Your task to perform on an android device: Open Maps and search for coffee Image 0: 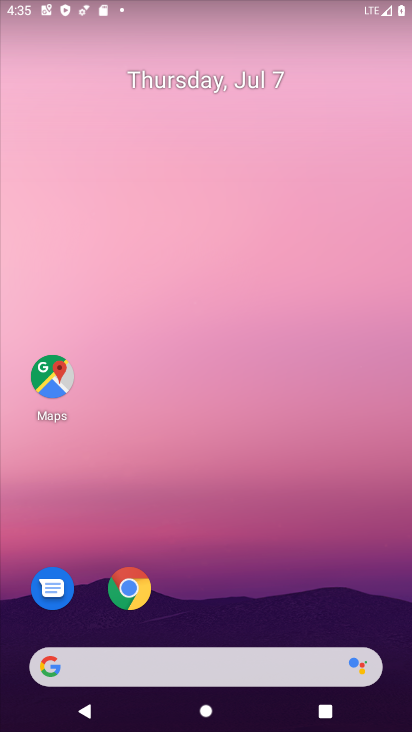
Step 0: drag from (328, 655) to (306, 21)
Your task to perform on an android device: Open Maps and search for coffee Image 1: 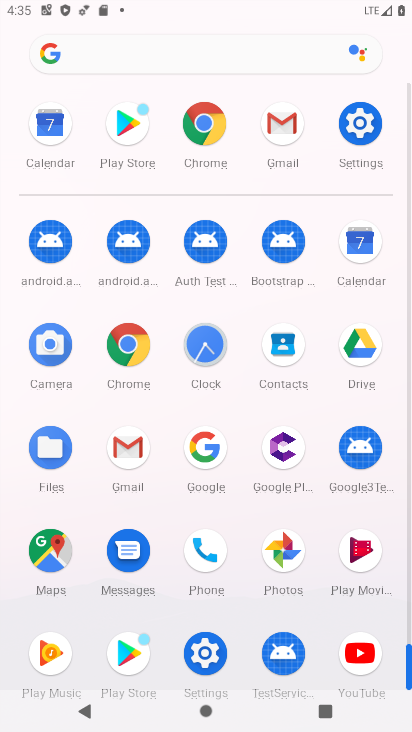
Step 1: click (46, 565)
Your task to perform on an android device: Open Maps and search for coffee Image 2: 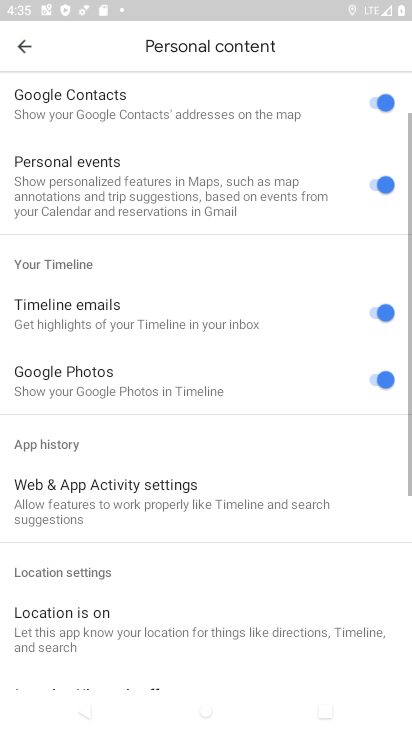
Step 2: press back button
Your task to perform on an android device: Open Maps and search for coffee Image 3: 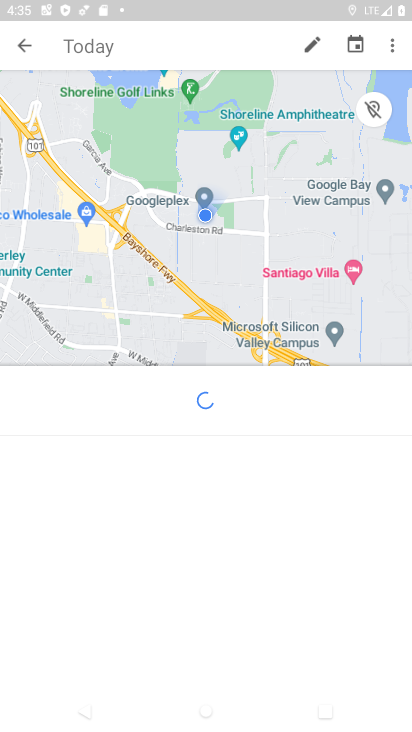
Step 3: press back button
Your task to perform on an android device: Open Maps and search for coffee Image 4: 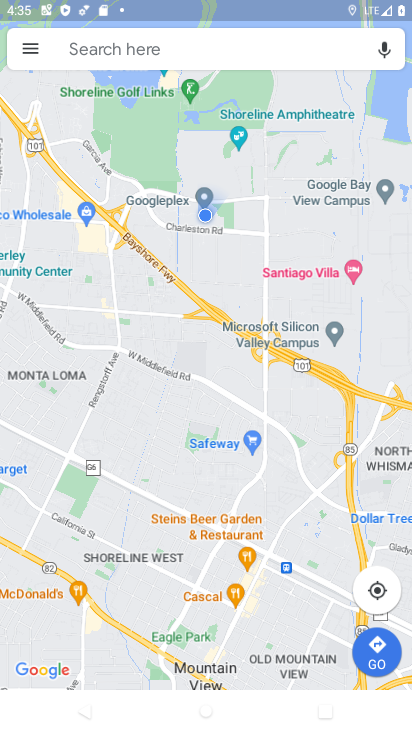
Step 4: click (154, 46)
Your task to perform on an android device: Open Maps and search for coffee Image 5: 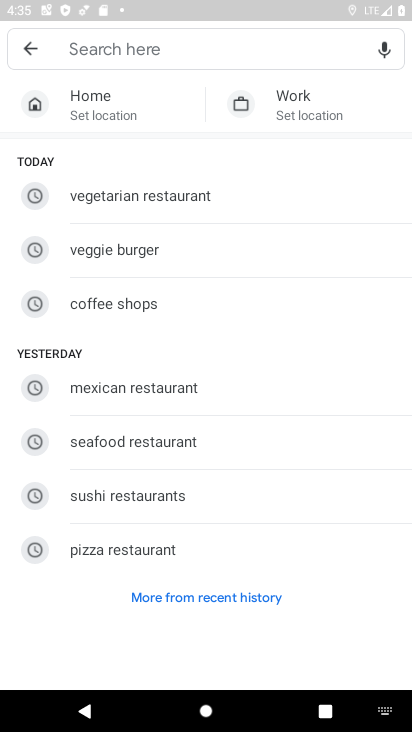
Step 5: type "coffee"
Your task to perform on an android device: Open Maps and search for coffee Image 6: 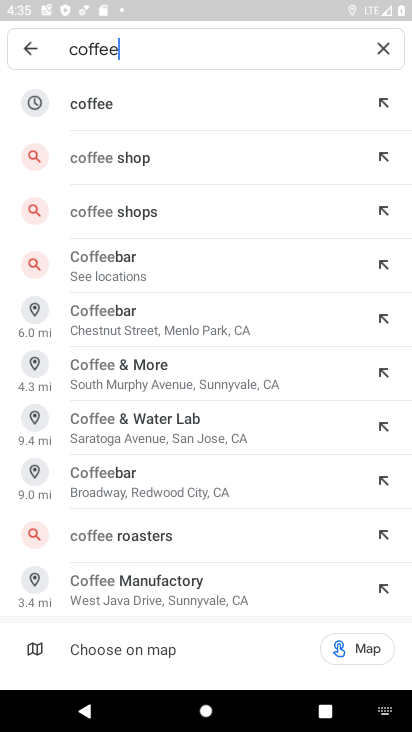
Step 6: click (149, 115)
Your task to perform on an android device: Open Maps and search for coffee Image 7: 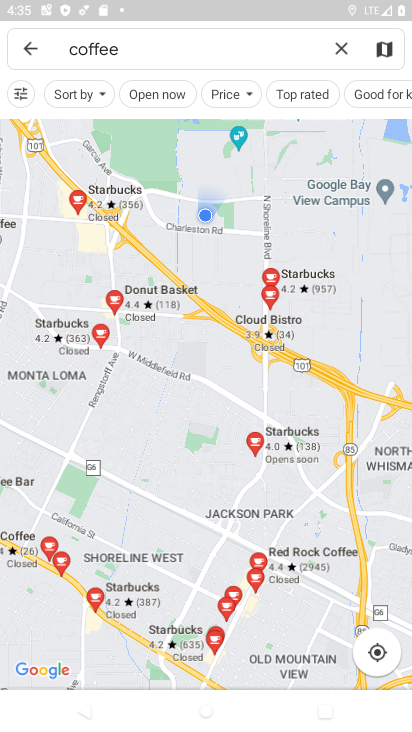
Step 7: task complete